Your task to perform on an android device: turn off picture-in-picture Image 0: 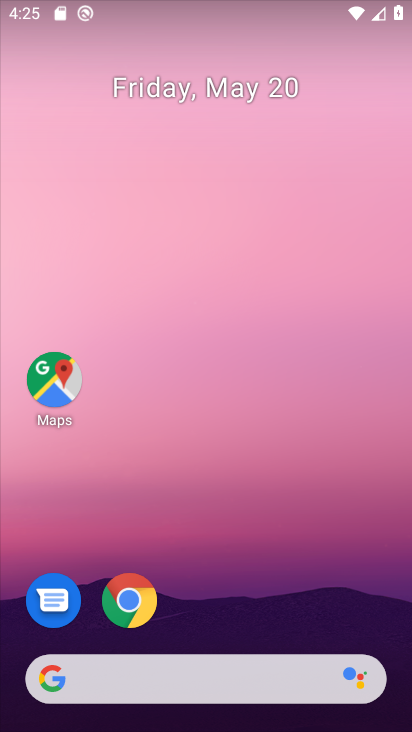
Step 0: drag from (282, 558) to (184, 95)
Your task to perform on an android device: turn off picture-in-picture Image 1: 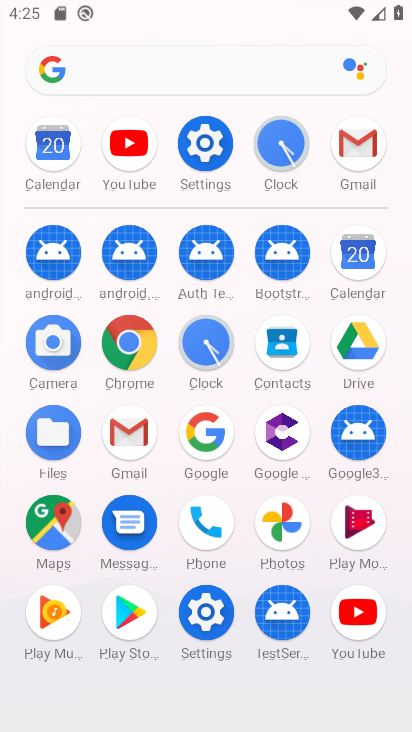
Step 1: click (213, 172)
Your task to perform on an android device: turn off picture-in-picture Image 2: 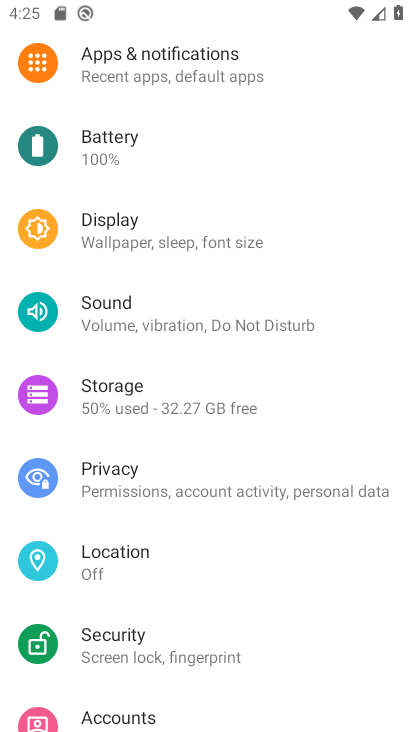
Step 2: drag from (254, 558) to (220, 128)
Your task to perform on an android device: turn off picture-in-picture Image 3: 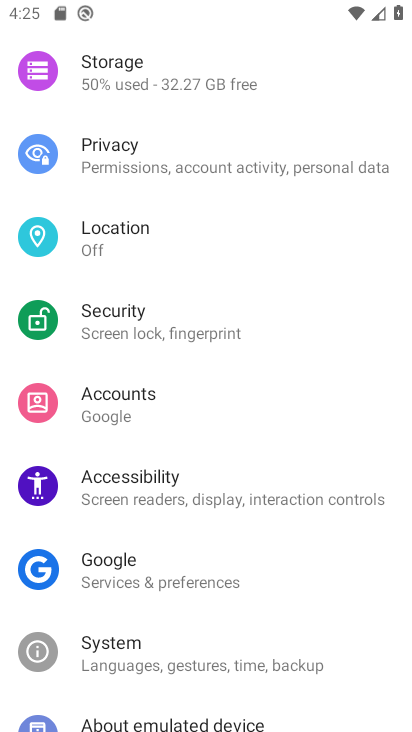
Step 3: drag from (226, 161) to (200, 731)
Your task to perform on an android device: turn off picture-in-picture Image 4: 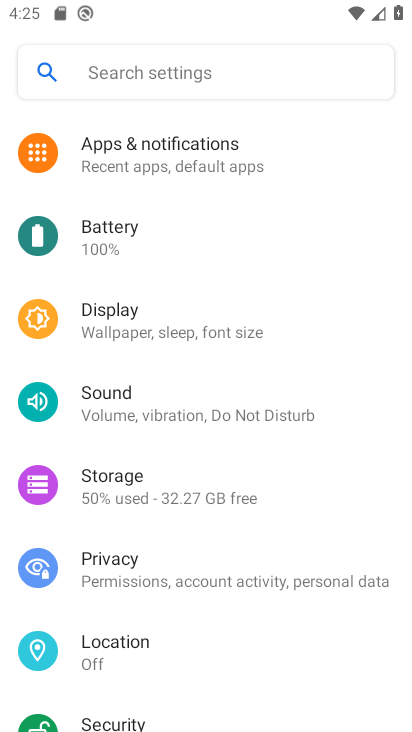
Step 4: drag from (225, 276) to (187, 659)
Your task to perform on an android device: turn off picture-in-picture Image 5: 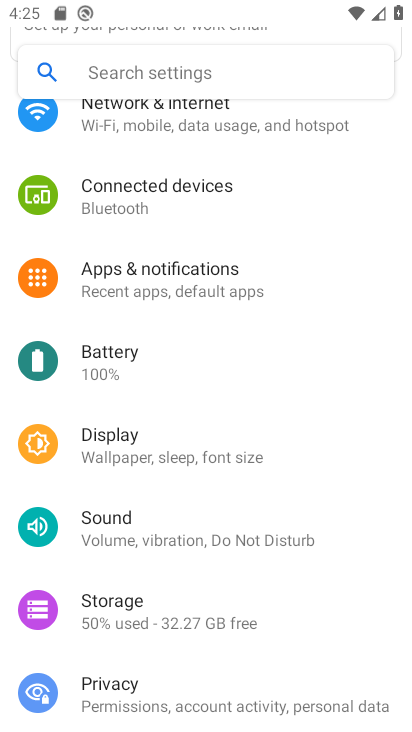
Step 5: click (189, 284)
Your task to perform on an android device: turn off picture-in-picture Image 6: 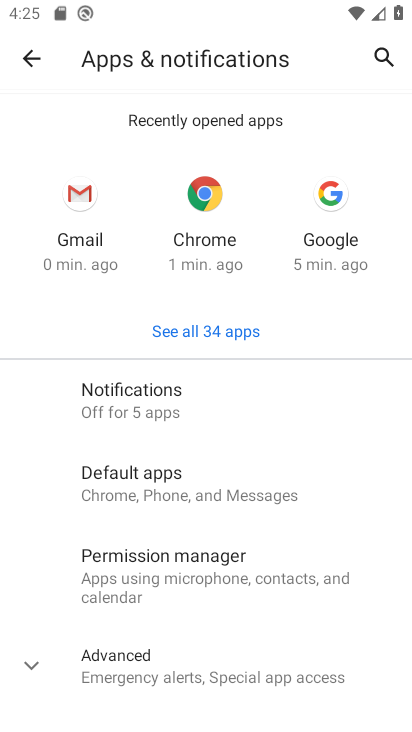
Step 6: click (218, 655)
Your task to perform on an android device: turn off picture-in-picture Image 7: 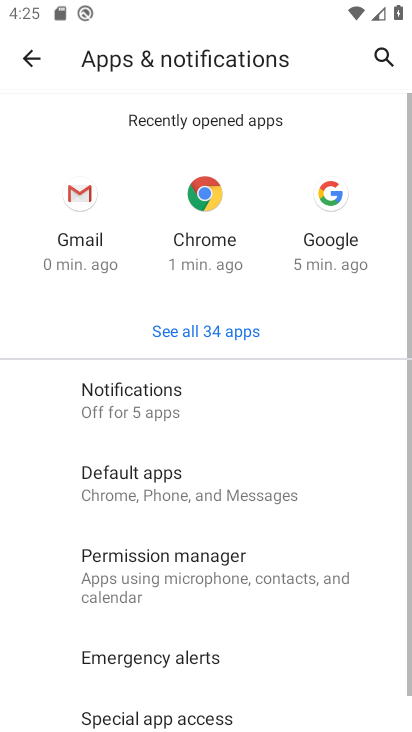
Step 7: click (246, 711)
Your task to perform on an android device: turn off picture-in-picture Image 8: 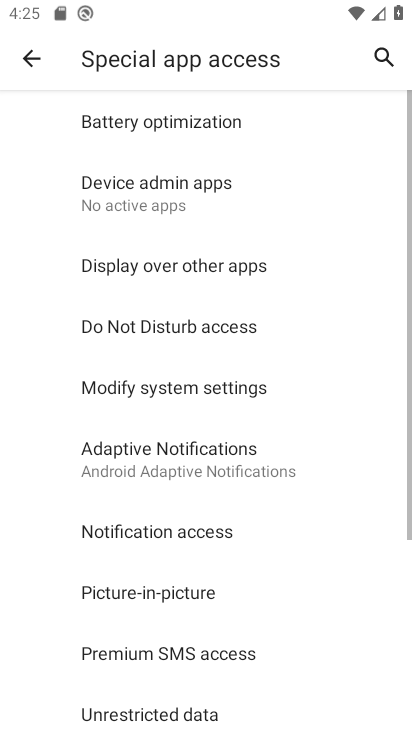
Step 8: click (206, 591)
Your task to perform on an android device: turn off picture-in-picture Image 9: 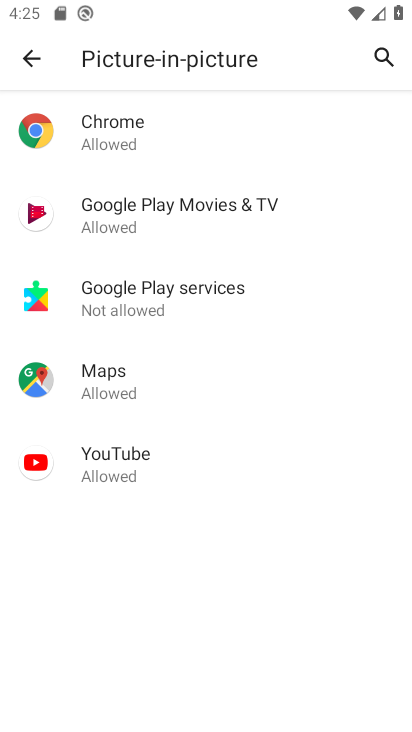
Step 9: click (234, 286)
Your task to perform on an android device: turn off picture-in-picture Image 10: 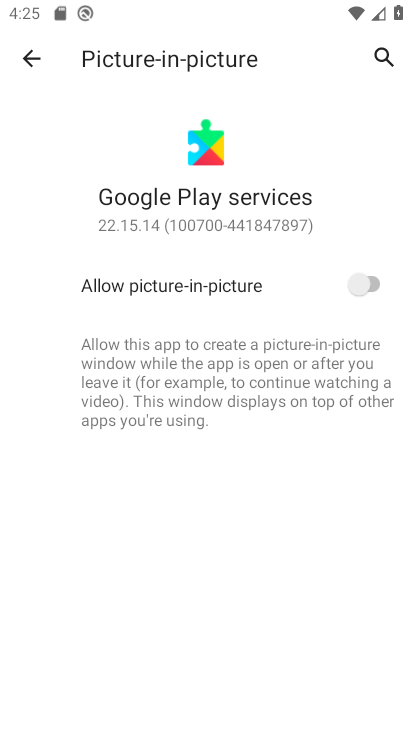
Step 10: click (31, 60)
Your task to perform on an android device: turn off picture-in-picture Image 11: 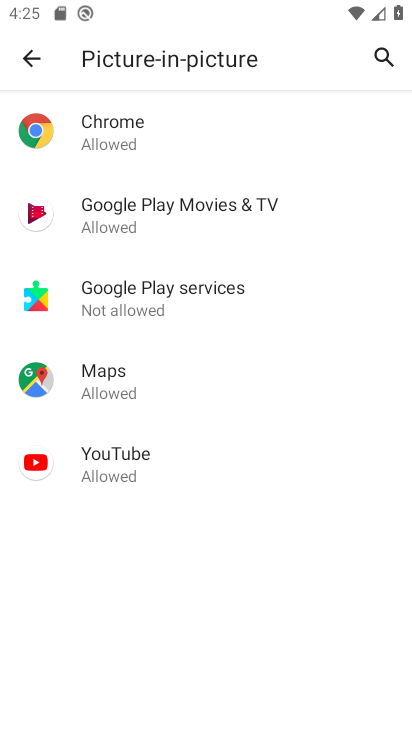
Step 11: click (178, 430)
Your task to perform on an android device: turn off picture-in-picture Image 12: 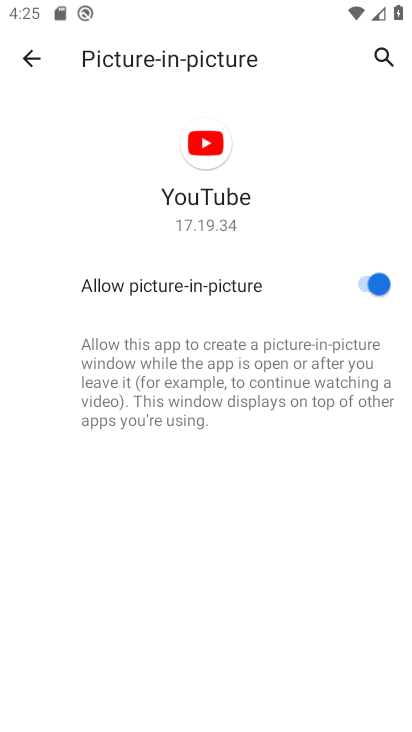
Step 12: click (382, 273)
Your task to perform on an android device: turn off picture-in-picture Image 13: 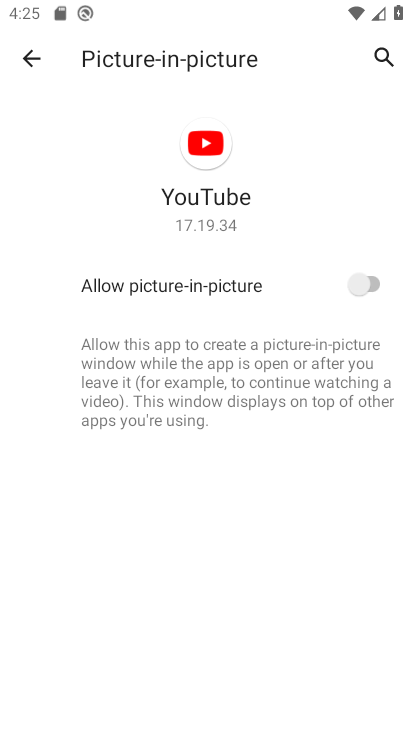
Step 13: task complete